Your task to perform on an android device: turn vacation reply on in the gmail app Image 0: 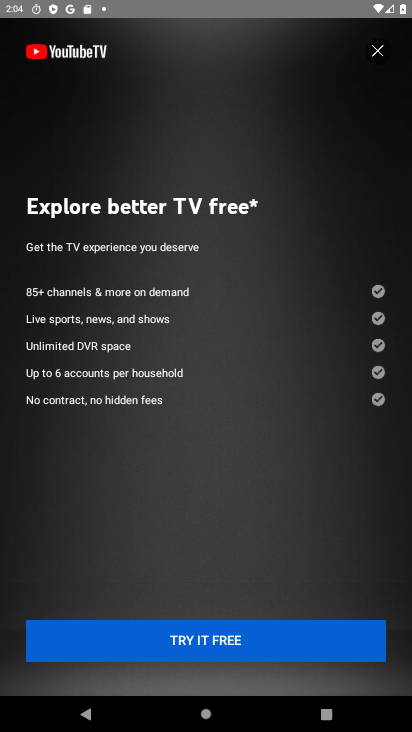
Step 0: click (372, 47)
Your task to perform on an android device: turn vacation reply on in the gmail app Image 1: 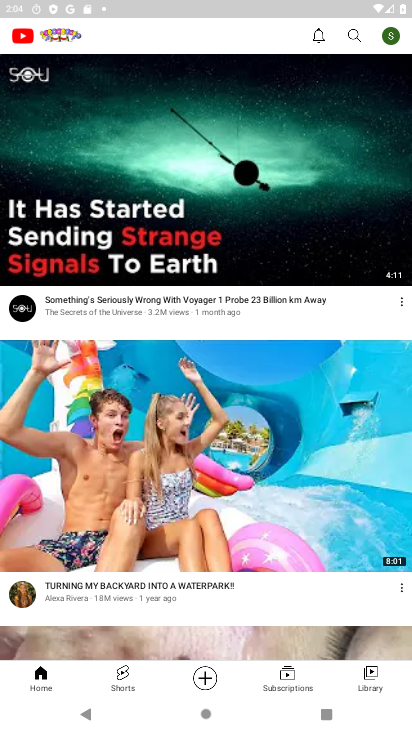
Step 1: drag from (309, 336) to (382, 50)
Your task to perform on an android device: turn vacation reply on in the gmail app Image 2: 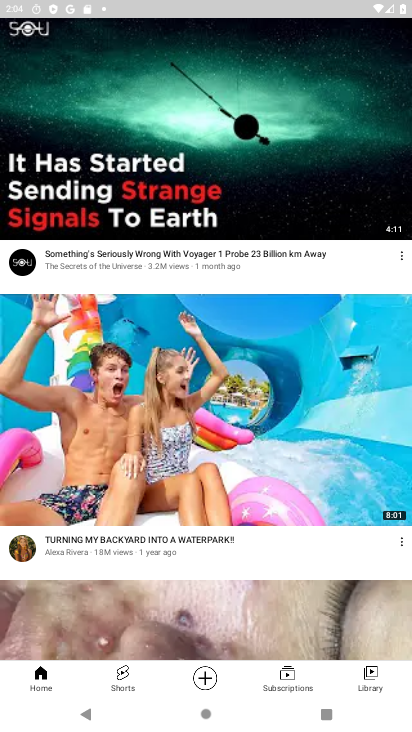
Step 2: drag from (257, 515) to (352, 59)
Your task to perform on an android device: turn vacation reply on in the gmail app Image 3: 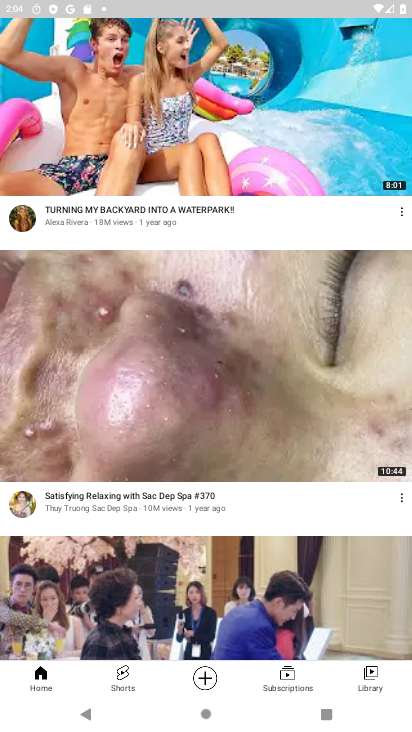
Step 3: drag from (312, 524) to (407, 142)
Your task to perform on an android device: turn vacation reply on in the gmail app Image 4: 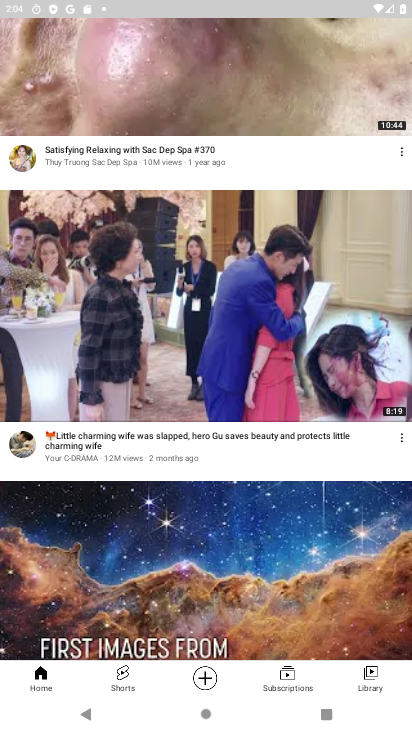
Step 4: press home button
Your task to perform on an android device: turn vacation reply on in the gmail app Image 5: 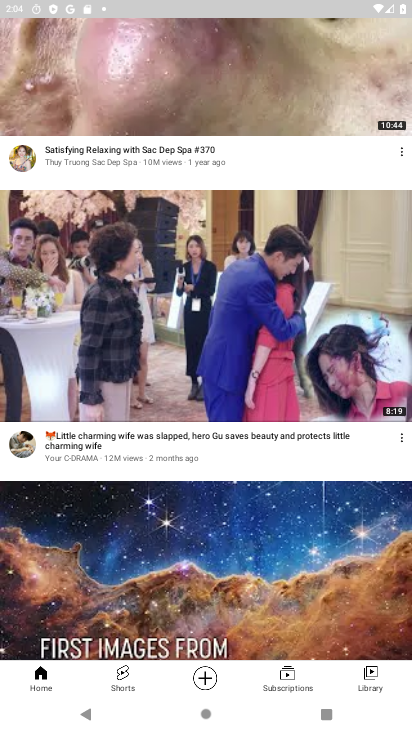
Step 5: click (408, 530)
Your task to perform on an android device: turn vacation reply on in the gmail app Image 6: 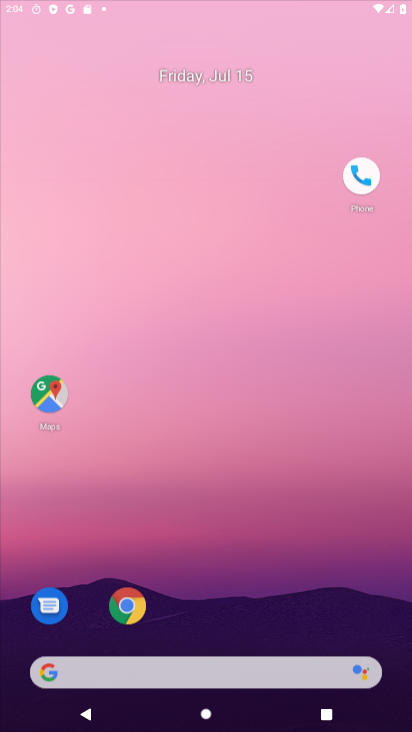
Step 6: drag from (231, 586) to (233, 42)
Your task to perform on an android device: turn vacation reply on in the gmail app Image 7: 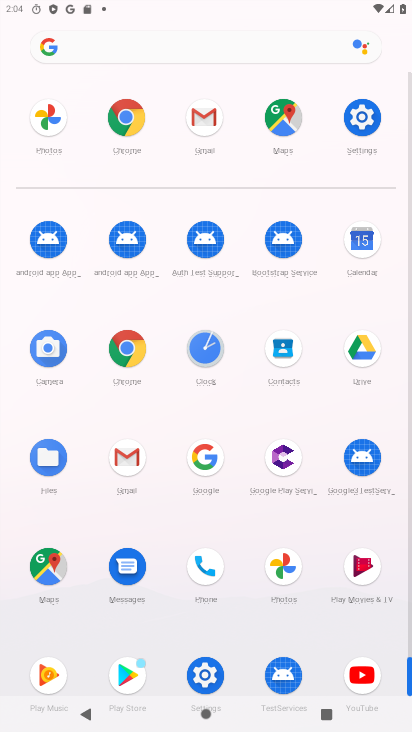
Step 7: click (203, 105)
Your task to perform on an android device: turn vacation reply on in the gmail app Image 8: 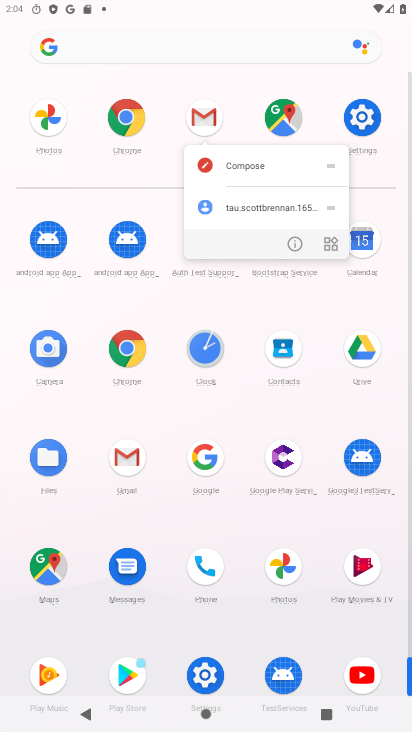
Step 8: click (292, 239)
Your task to perform on an android device: turn vacation reply on in the gmail app Image 9: 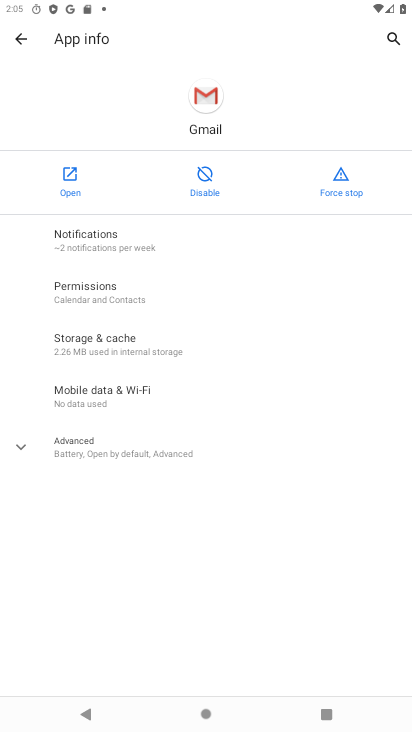
Step 9: click (62, 187)
Your task to perform on an android device: turn vacation reply on in the gmail app Image 10: 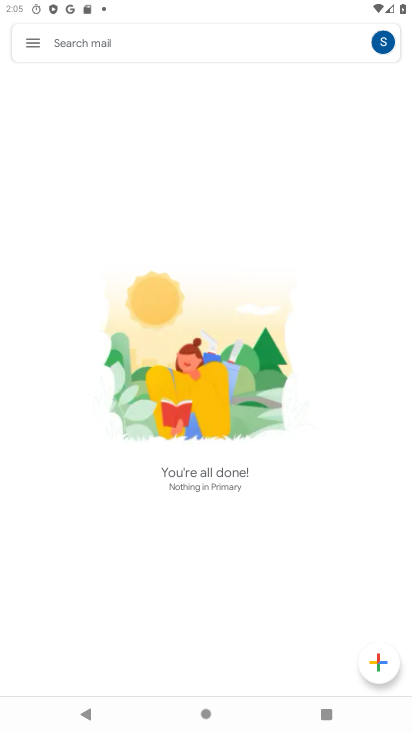
Step 10: click (35, 53)
Your task to perform on an android device: turn vacation reply on in the gmail app Image 11: 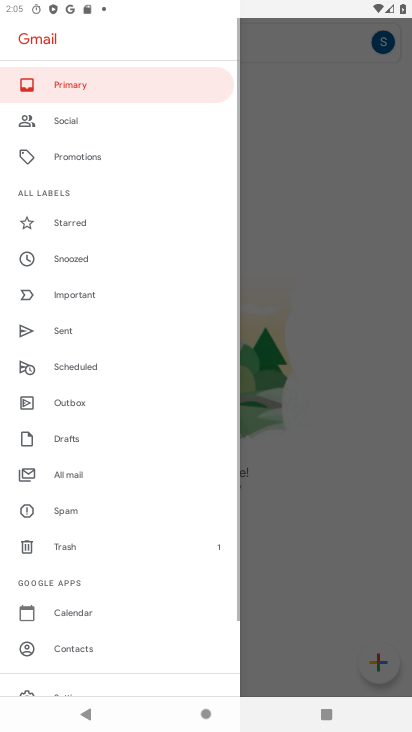
Step 11: drag from (106, 400) to (90, 97)
Your task to perform on an android device: turn vacation reply on in the gmail app Image 12: 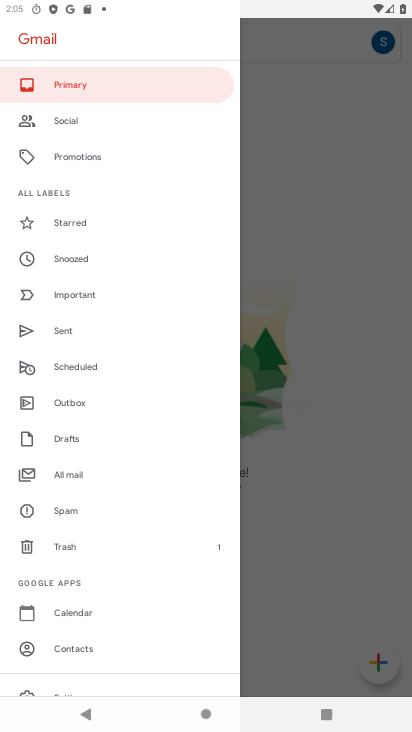
Step 12: drag from (98, 601) to (191, 89)
Your task to perform on an android device: turn vacation reply on in the gmail app Image 13: 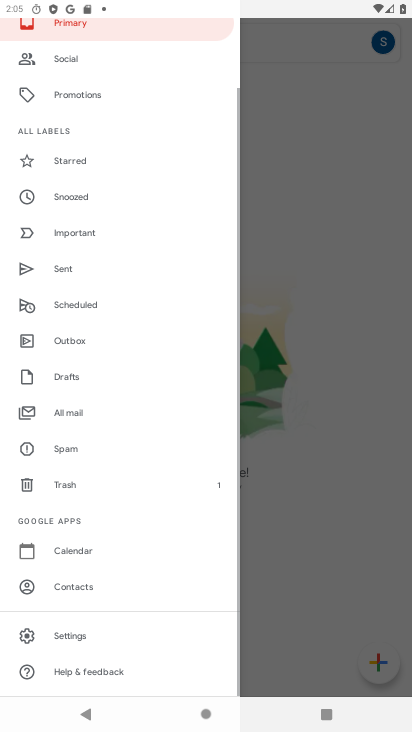
Step 13: click (70, 637)
Your task to perform on an android device: turn vacation reply on in the gmail app Image 14: 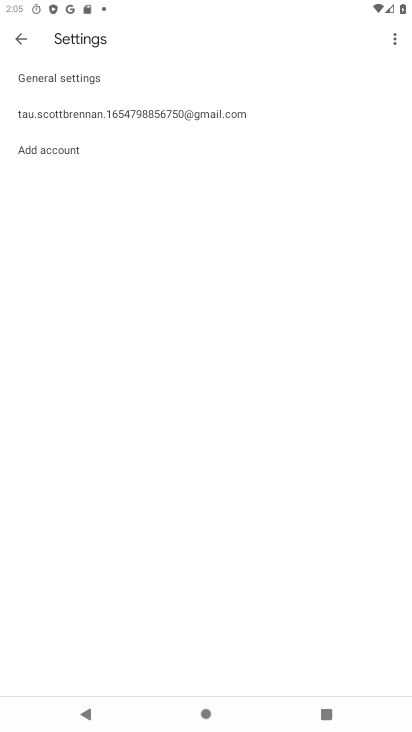
Step 14: drag from (107, 560) to (179, 193)
Your task to perform on an android device: turn vacation reply on in the gmail app Image 15: 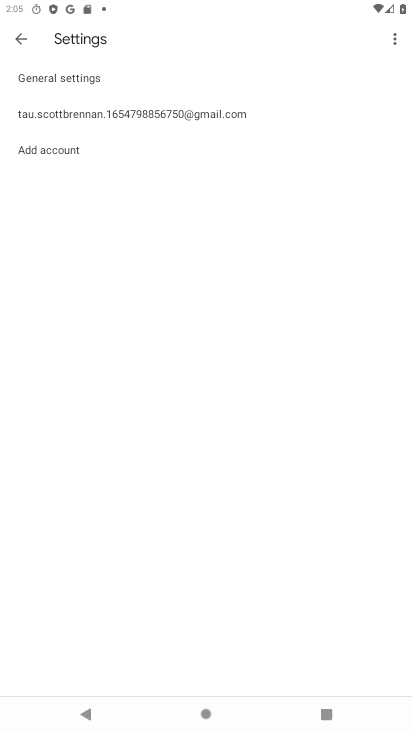
Step 15: drag from (241, 630) to (217, 273)
Your task to perform on an android device: turn vacation reply on in the gmail app Image 16: 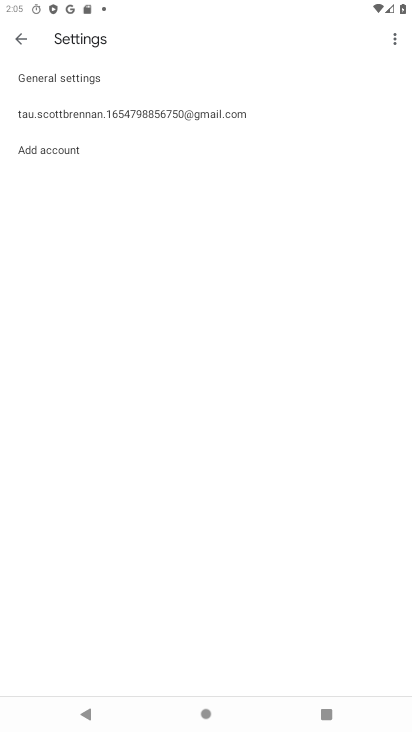
Step 16: click (144, 113)
Your task to perform on an android device: turn vacation reply on in the gmail app Image 17: 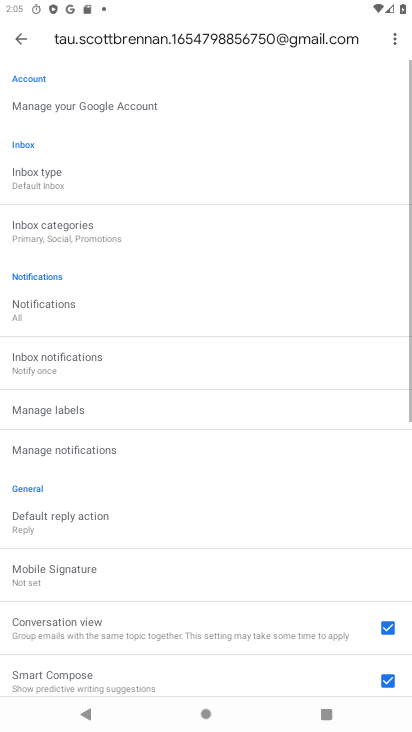
Step 17: drag from (182, 626) to (294, 146)
Your task to perform on an android device: turn vacation reply on in the gmail app Image 18: 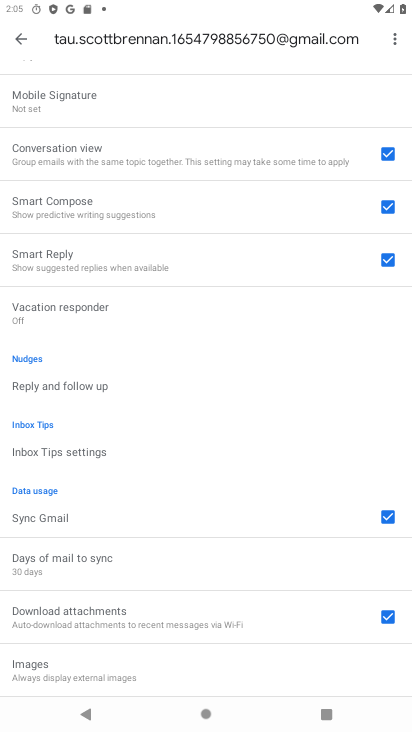
Step 18: click (124, 306)
Your task to perform on an android device: turn vacation reply on in the gmail app Image 19: 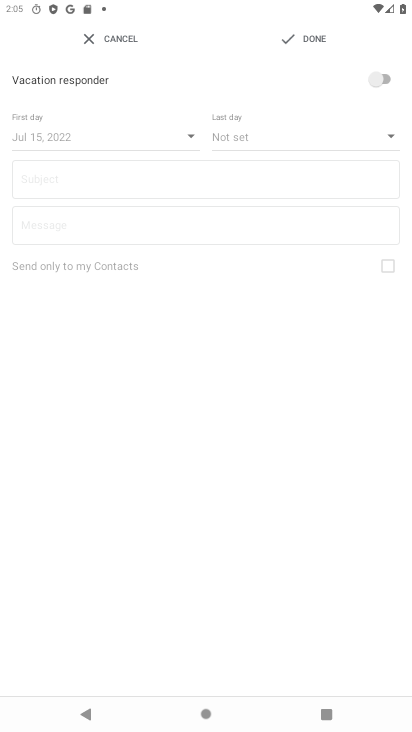
Step 19: click (364, 79)
Your task to perform on an android device: turn vacation reply on in the gmail app Image 20: 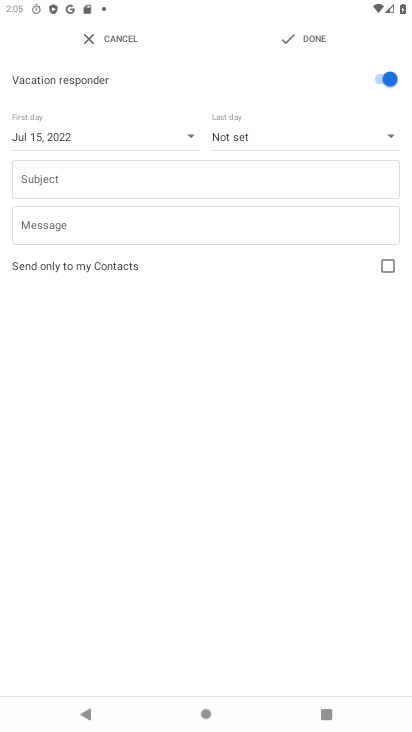
Step 20: click (306, 40)
Your task to perform on an android device: turn vacation reply on in the gmail app Image 21: 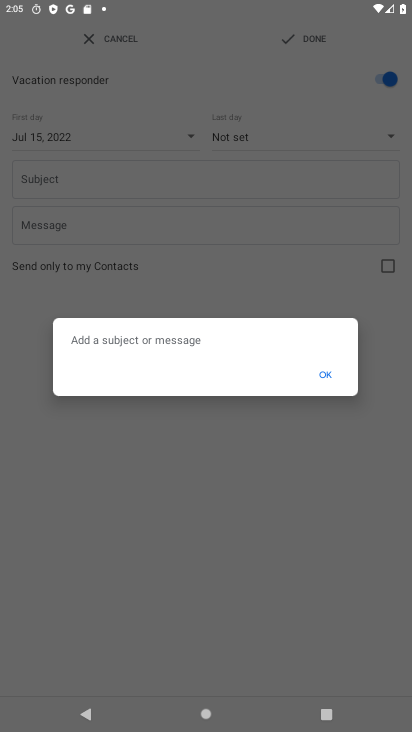
Step 21: task complete